Your task to perform on an android device: turn off sleep mode Image 0: 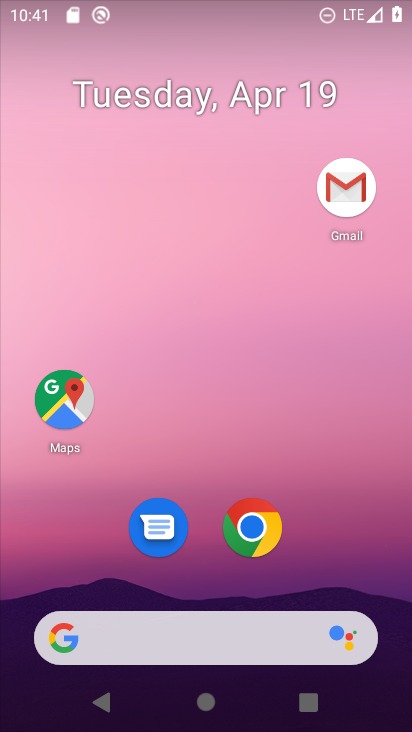
Step 0: drag from (359, 553) to (359, 115)
Your task to perform on an android device: turn off sleep mode Image 1: 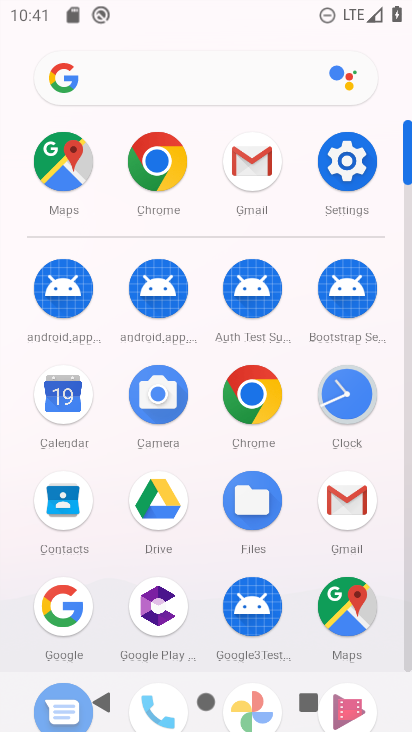
Step 1: drag from (298, 569) to (292, 311)
Your task to perform on an android device: turn off sleep mode Image 2: 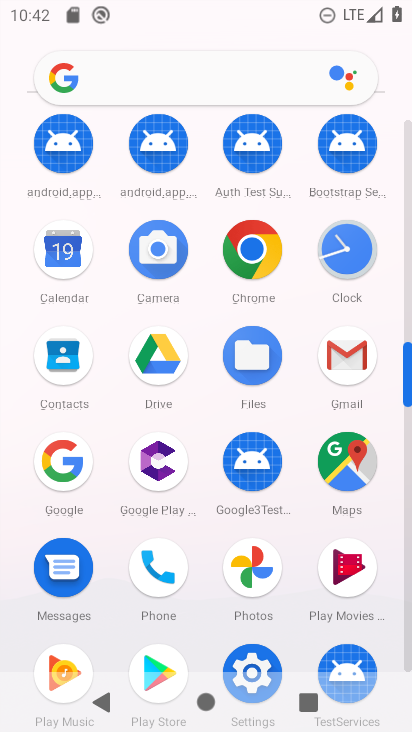
Step 2: click (251, 653)
Your task to perform on an android device: turn off sleep mode Image 3: 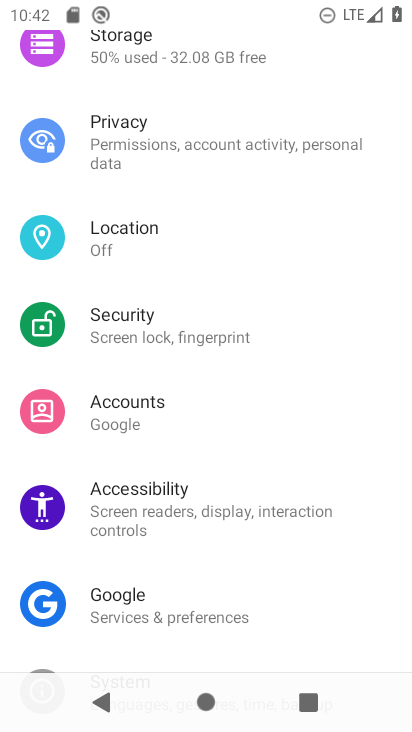
Step 3: drag from (317, 174) to (324, 489)
Your task to perform on an android device: turn off sleep mode Image 4: 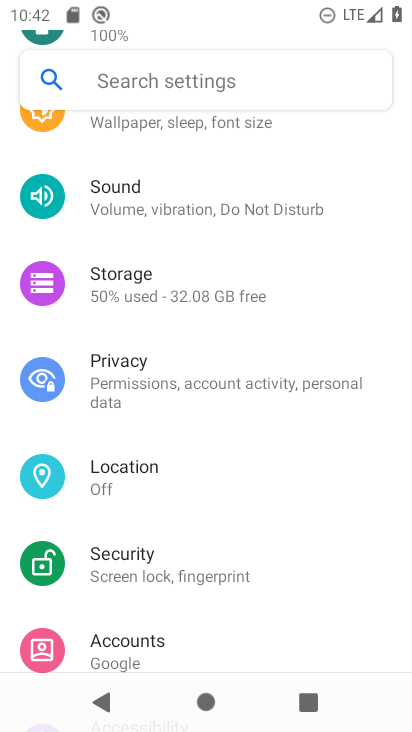
Step 4: click (216, 77)
Your task to perform on an android device: turn off sleep mode Image 5: 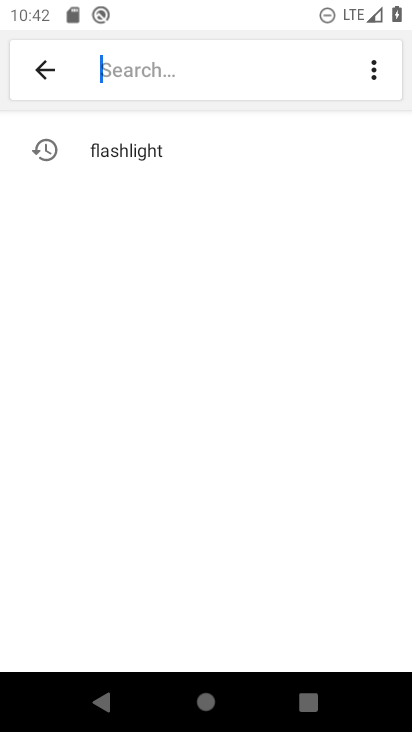
Step 5: type "sleep mode"
Your task to perform on an android device: turn off sleep mode Image 6: 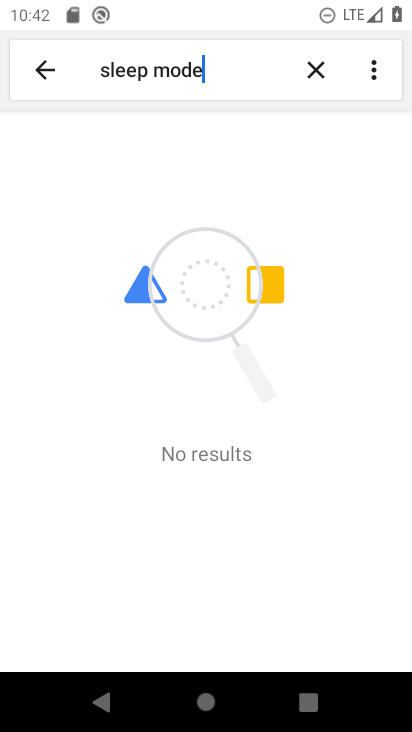
Step 6: task complete